Your task to perform on an android device: Go to calendar. Show me events next week Image 0: 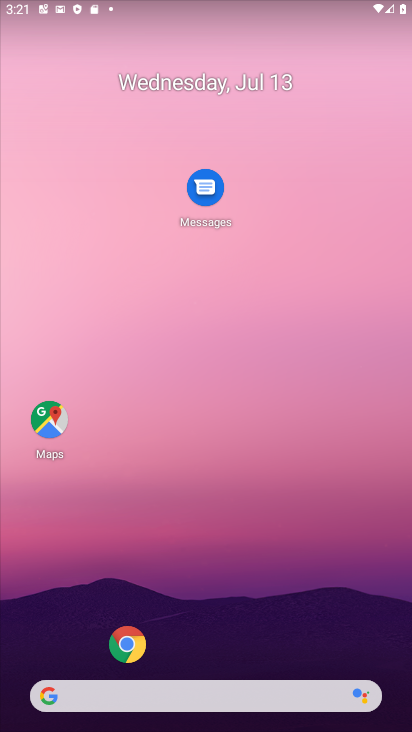
Step 0: drag from (19, 714) to (114, 180)
Your task to perform on an android device: Go to calendar. Show me events next week Image 1: 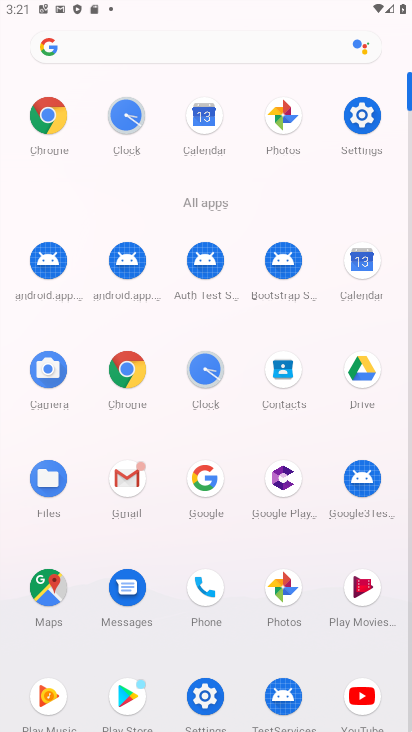
Step 1: click (19, 664)
Your task to perform on an android device: Go to calendar. Show me events next week Image 2: 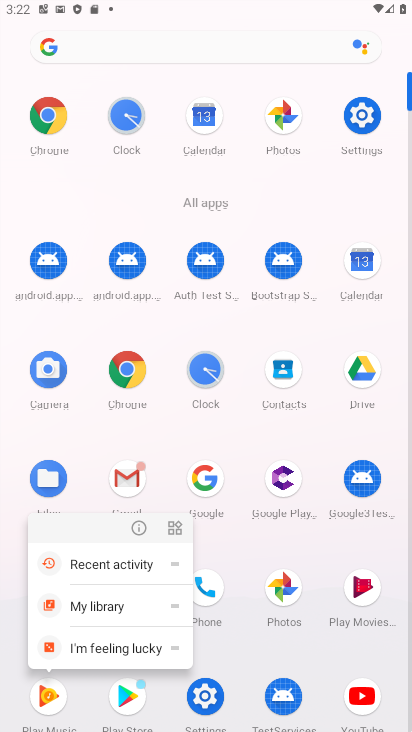
Step 2: click (364, 260)
Your task to perform on an android device: Go to calendar. Show me events next week Image 3: 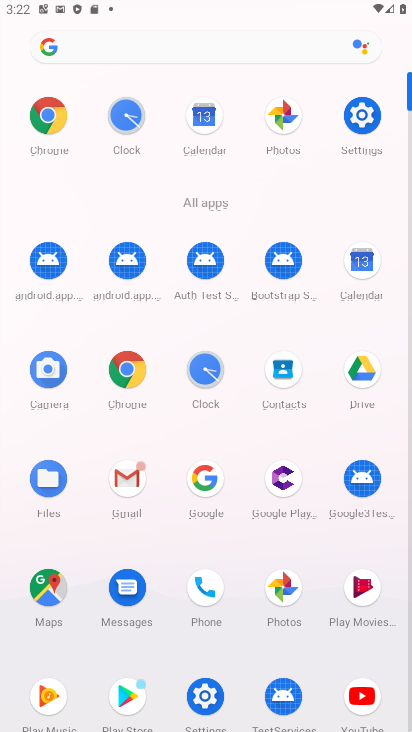
Step 3: click (358, 254)
Your task to perform on an android device: Go to calendar. Show me events next week Image 4: 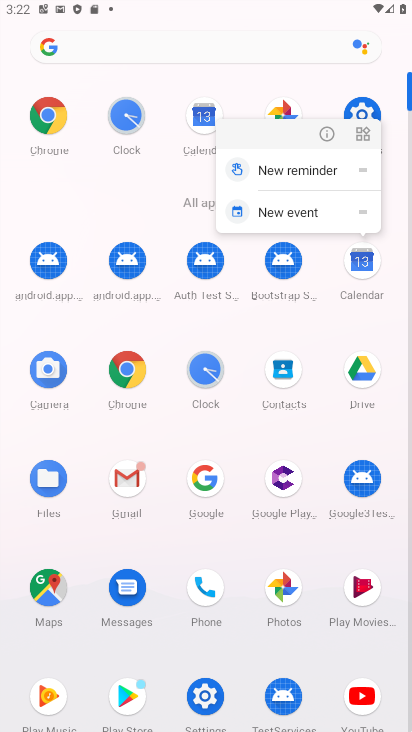
Step 4: click (349, 269)
Your task to perform on an android device: Go to calendar. Show me events next week Image 5: 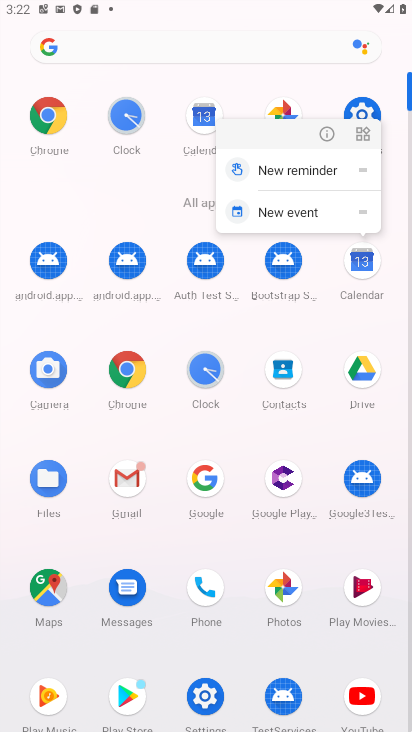
Step 5: click (364, 263)
Your task to perform on an android device: Go to calendar. Show me events next week Image 6: 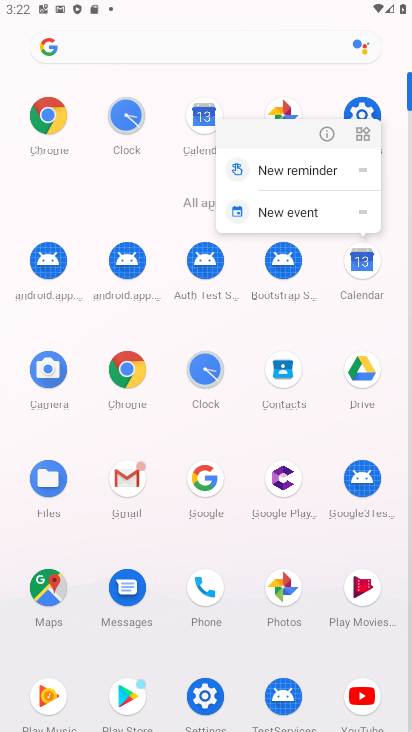
Step 6: click (361, 265)
Your task to perform on an android device: Go to calendar. Show me events next week Image 7: 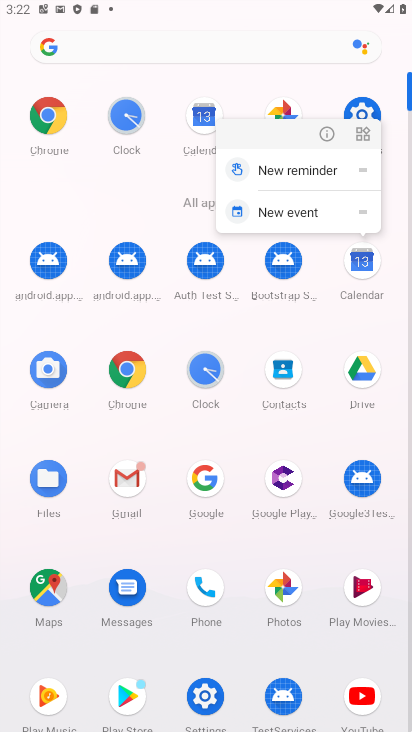
Step 7: task complete